Your task to perform on an android device: Add asus zenbook to the cart on ebay Image 0: 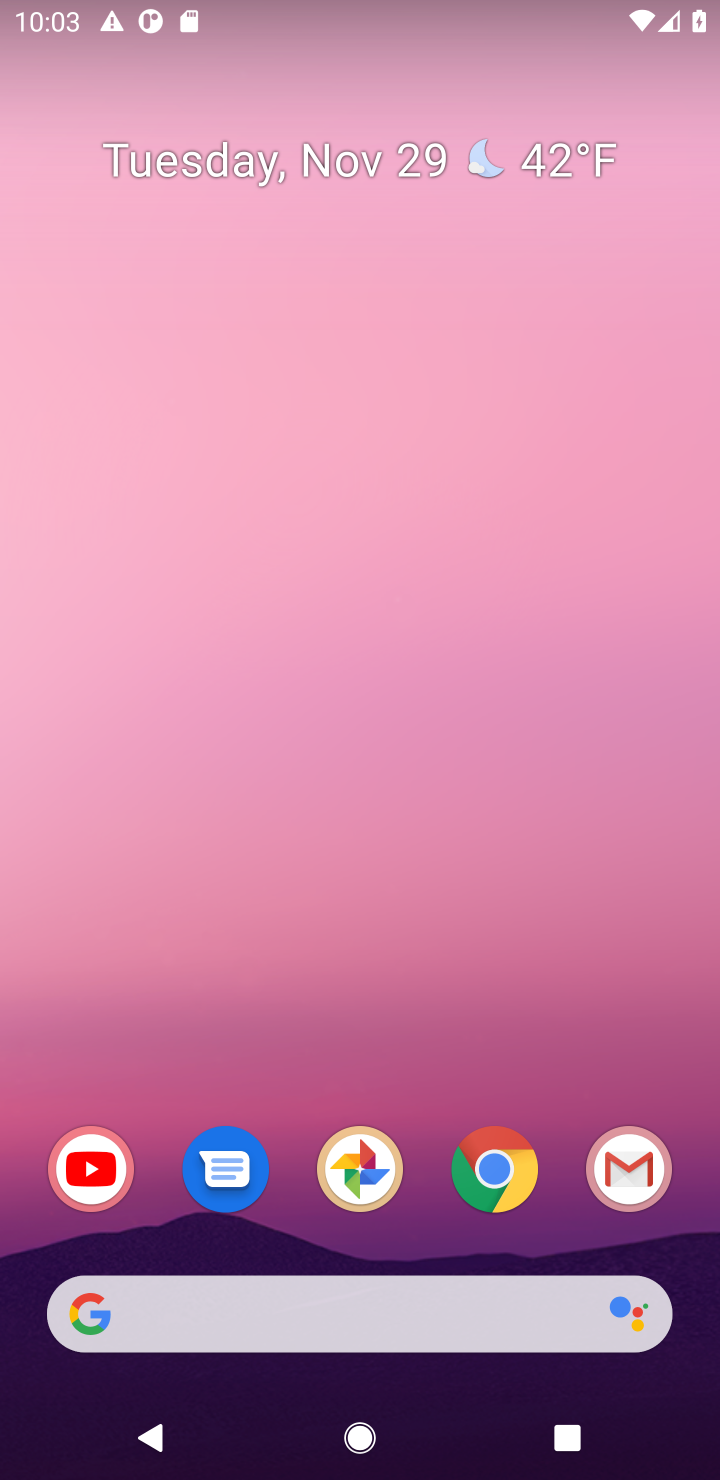
Step 0: click (347, 1304)
Your task to perform on an android device: Add asus zenbook to the cart on ebay Image 1: 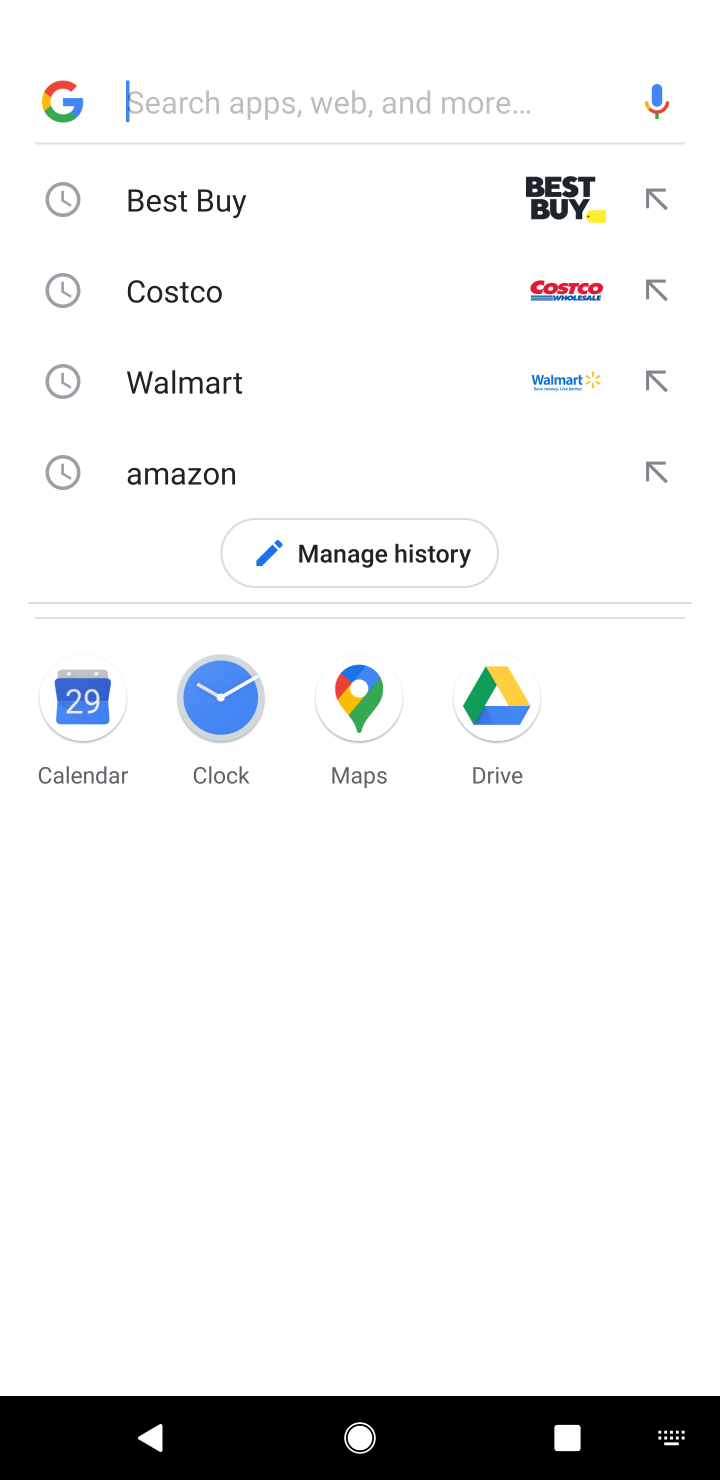
Step 1: type "ebay.com"
Your task to perform on an android device: Add asus zenbook to the cart on ebay Image 2: 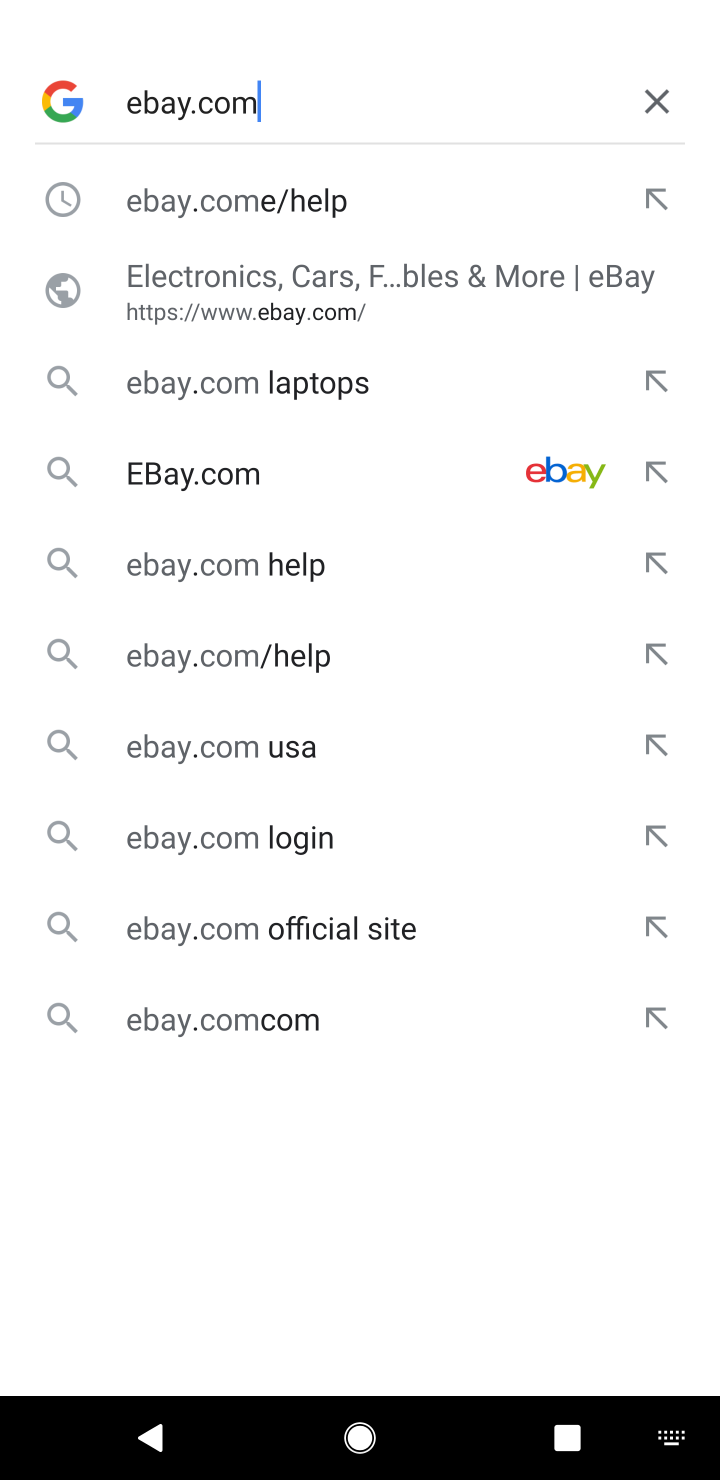
Step 2: click (225, 211)
Your task to perform on an android device: Add asus zenbook to the cart on ebay Image 3: 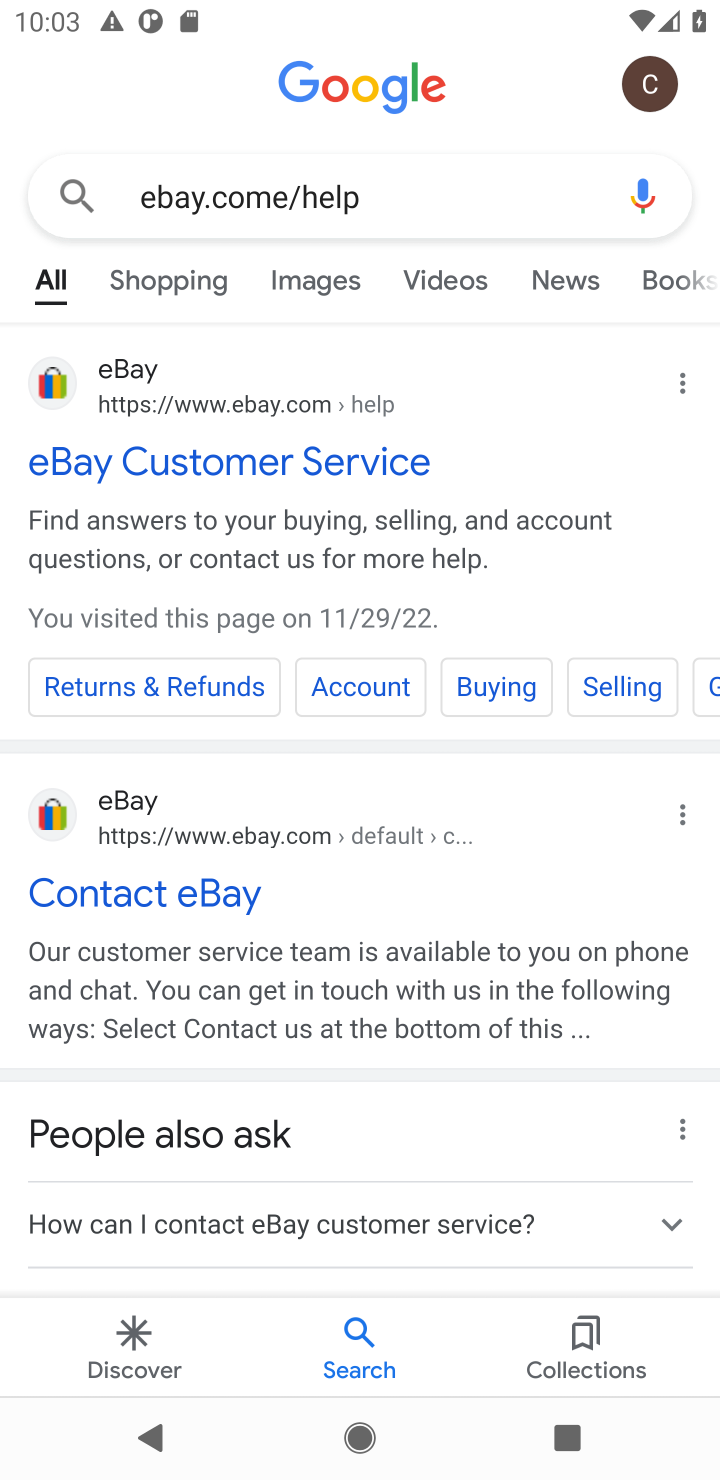
Step 3: click (301, 458)
Your task to perform on an android device: Add asus zenbook to the cart on ebay Image 4: 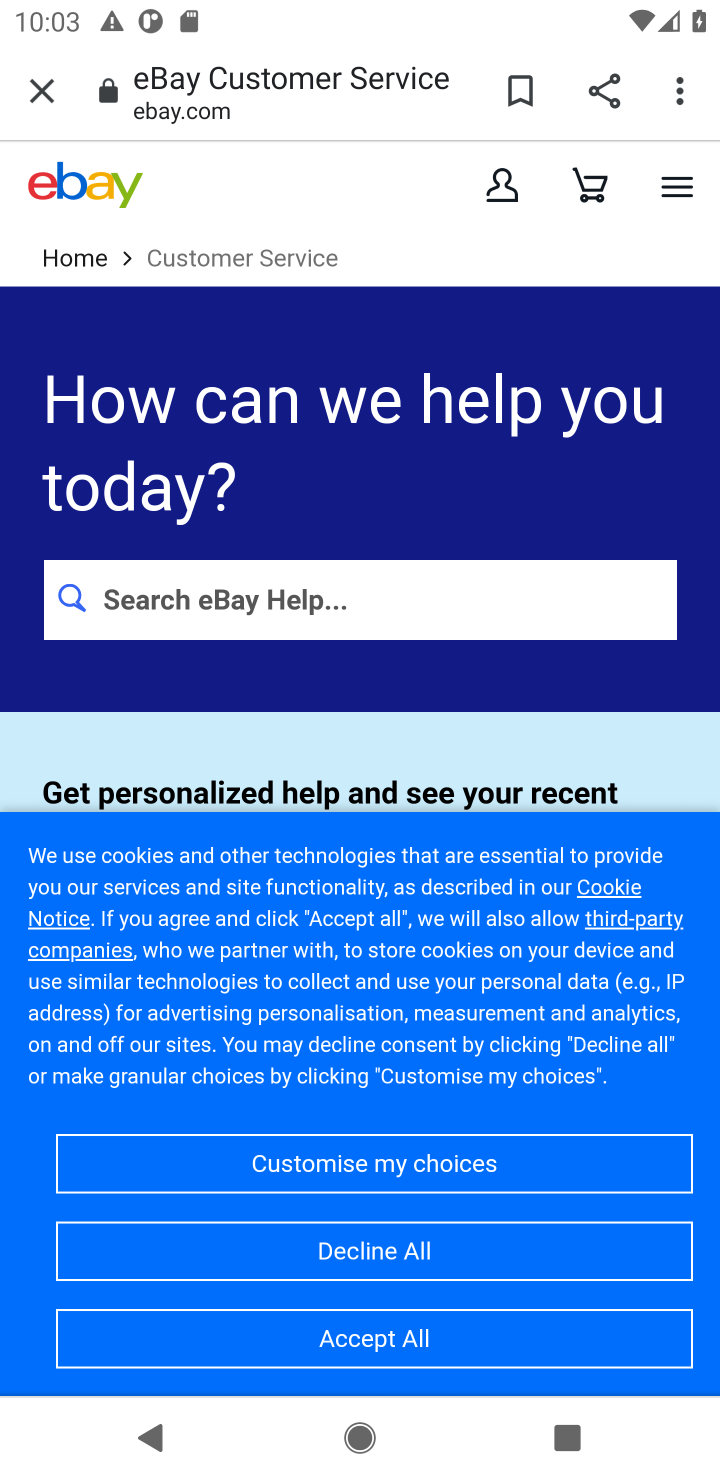
Step 4: click (326, 580)
Your task to perform on an android device: Add asus zenbook to the cart on ebay Image 5: 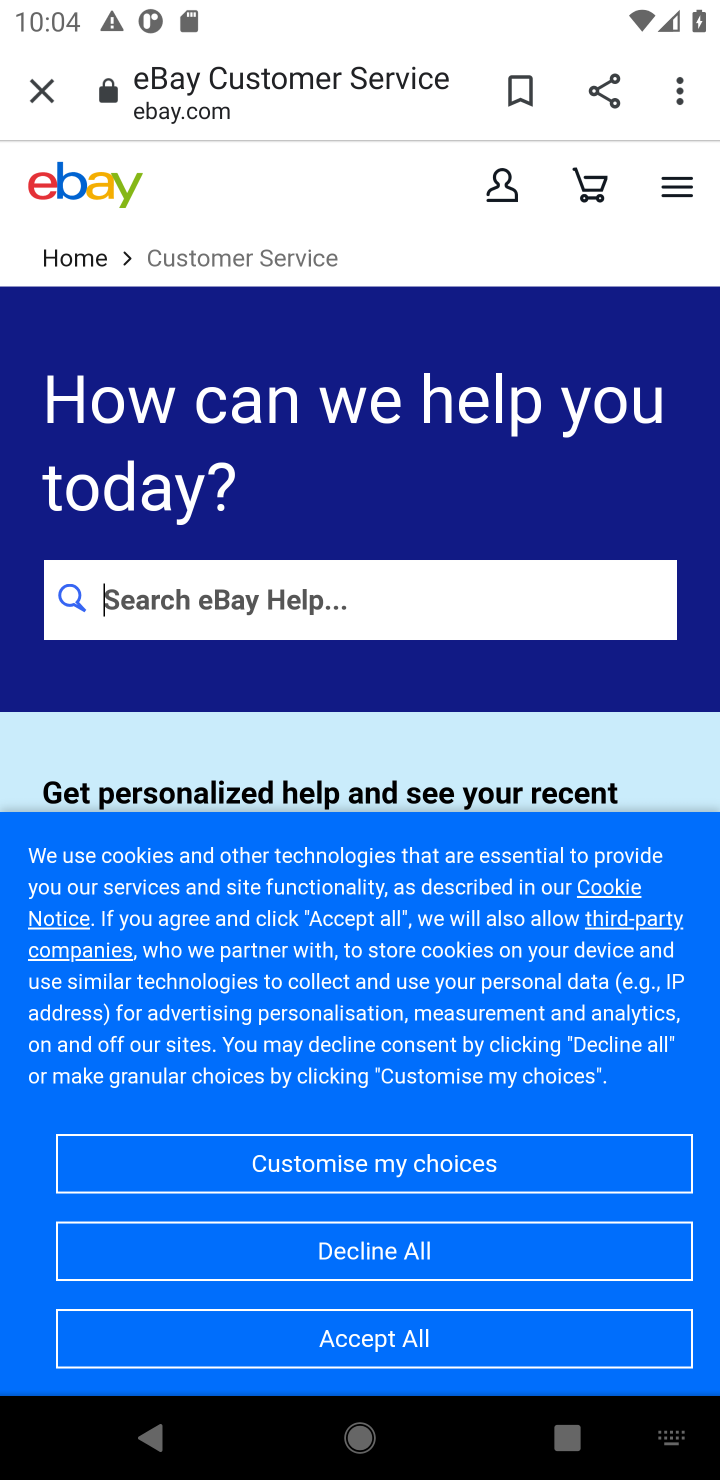
Step 5: type "asus zenbook"
Your task to perform on an android device: Add asus zenbook to the cart on ebay Image 6: 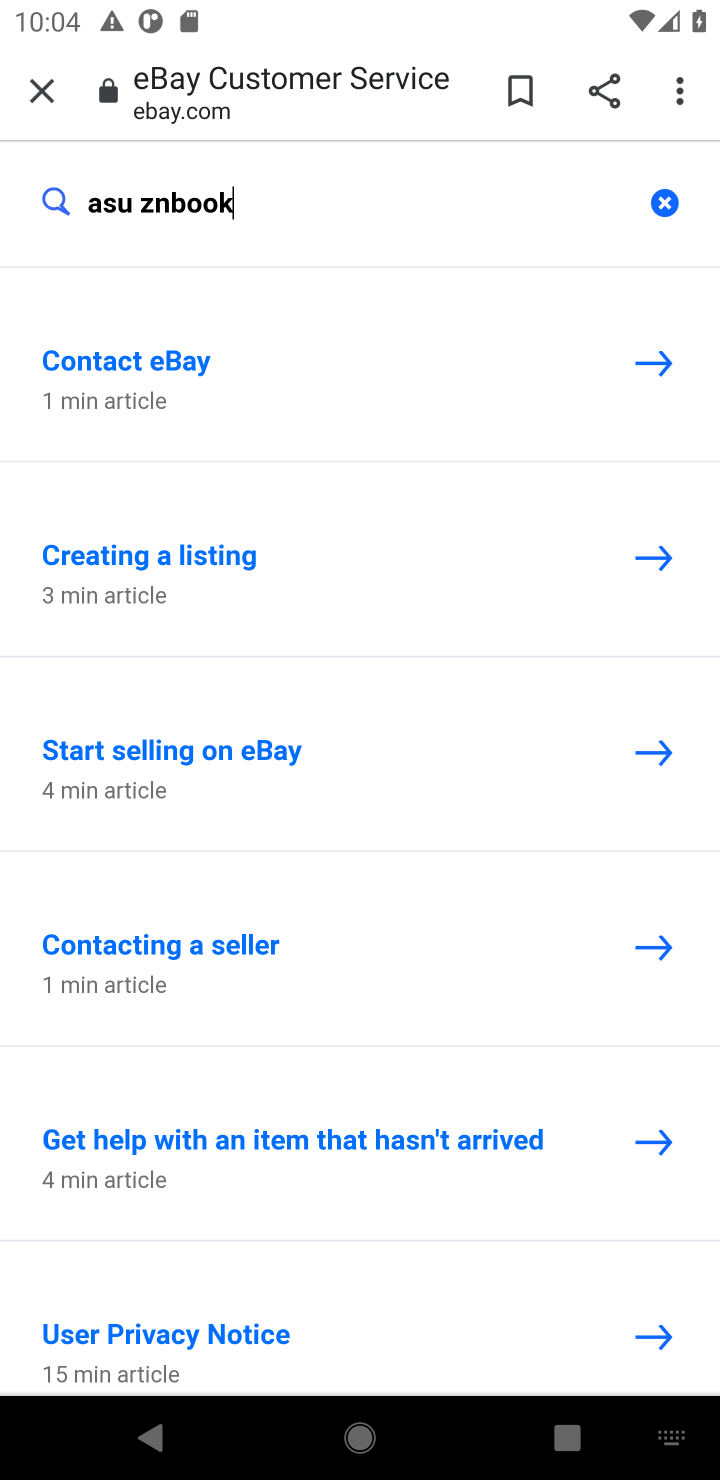
Step 6: task complete